Your task to perform on an android device: Open the map Image 0: 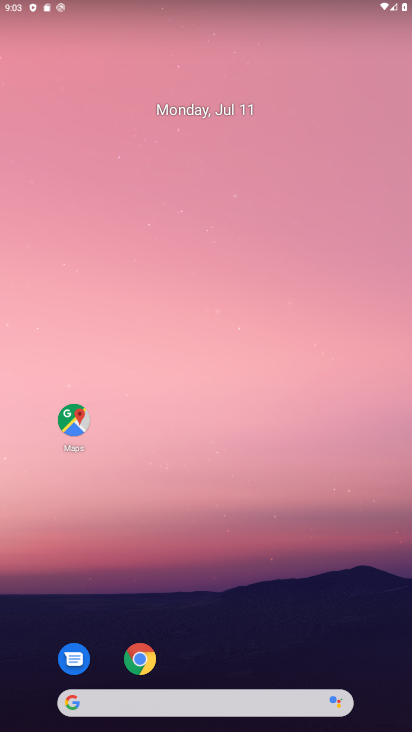
Step 0: drag from (307, 646) to (304, 171)
Your task to perform on an android device: Open the map Image 1: 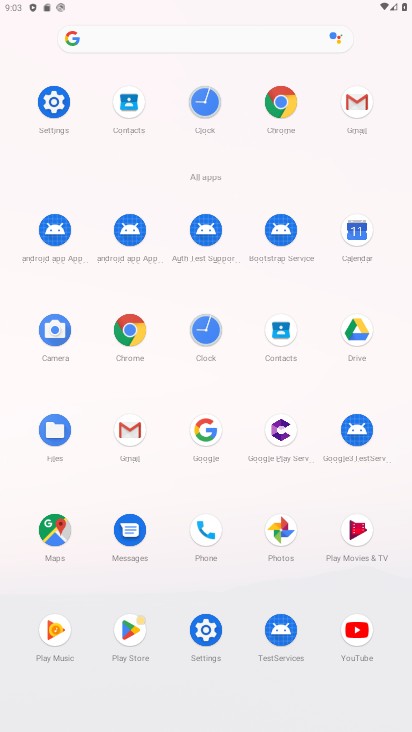
Step 1: click (52, 532)
Your task to perform on an android device: Open the map Image 2: 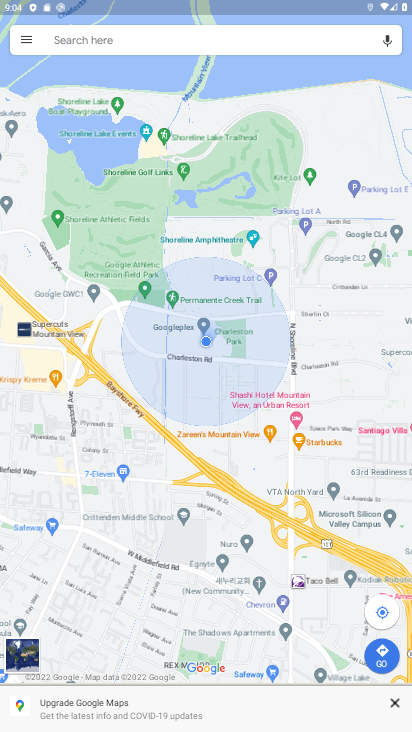
Step 2: task complete